Your task to perform on an android device: see creations saved in the google photos Image 0: 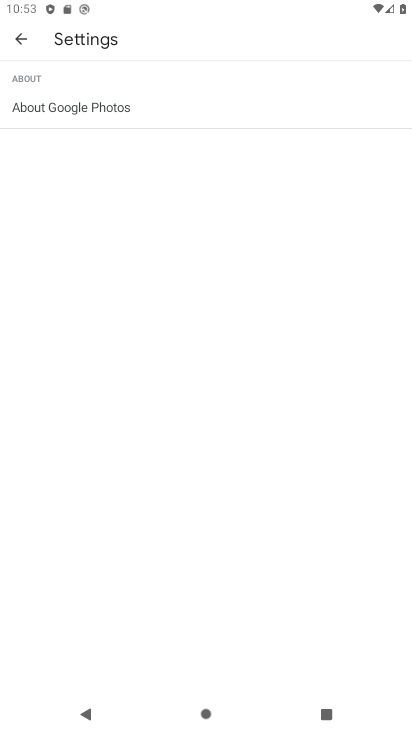
Step 0: press home button
Your task to perform on an android device: see creations saved in the google photos Image 1: 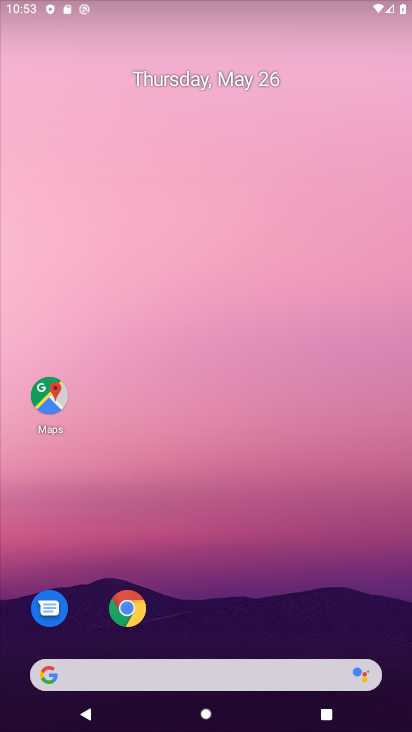
Step 1: drag from (265, 536) to (287, 137)
Your task to perform on an android device: see creations saved in the google photos Image 2: 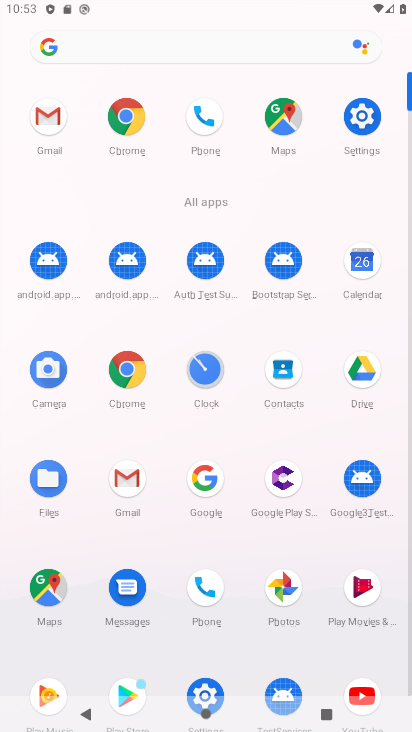
Step 2: click (280, 594)
Your task to perform on an android device: see creations saved in the google photos Image 3: 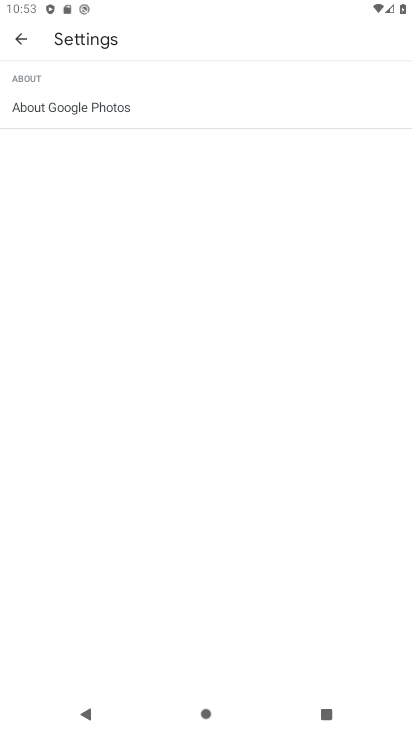
Step 3: click (25, 34)
Your task to perform on an android device: see creations saved in the google photos Image 4: 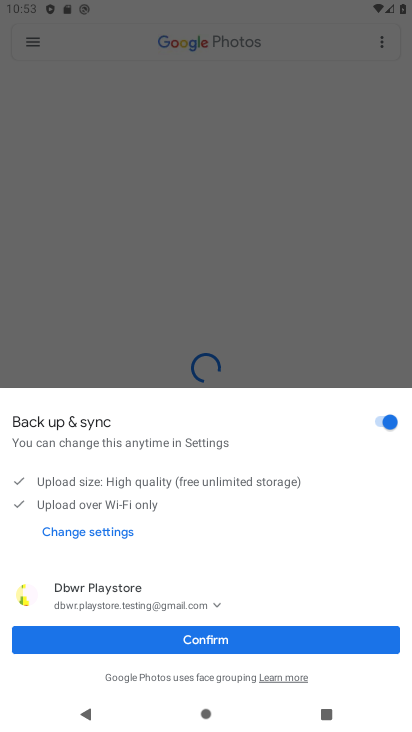
Step 4: click (219, 648)
Your task to perform on an android device: see creations saved in the google photos Image 5: 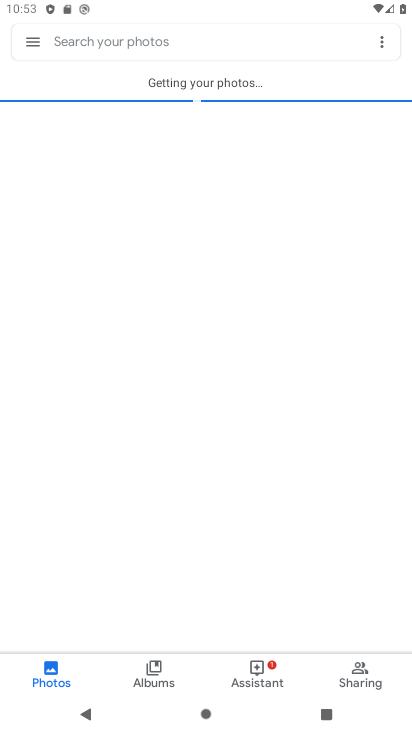
Step 5: click (262, 668)
Your task to perform on an android device: see creations saved in the google photos Image 6: 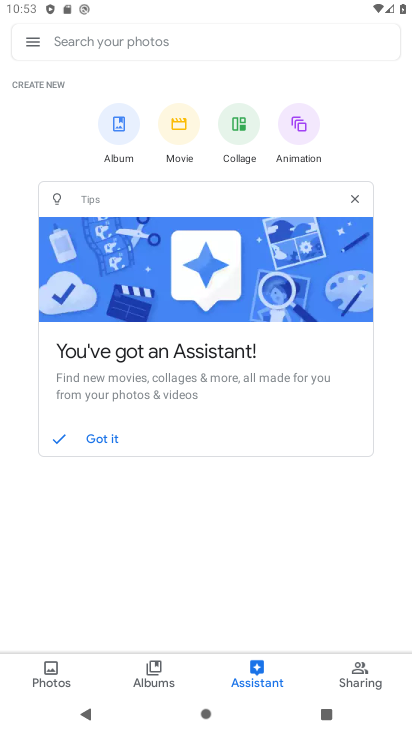
Step 6: click (365, 679)
Your task to perform on an android device: see creations saved in the google photos Image 7: 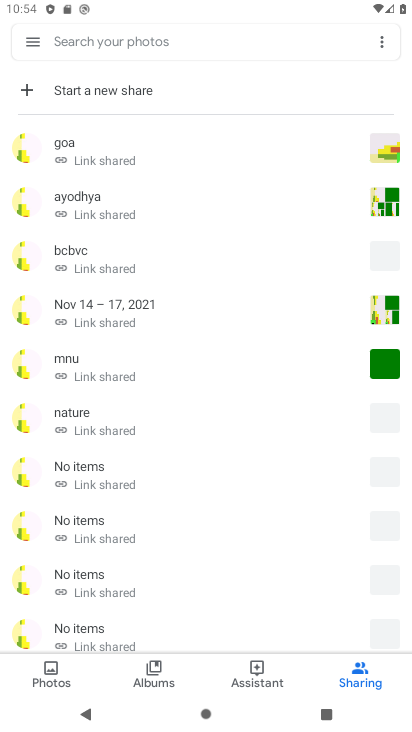
Step 7: task complete